Your task to perform on an android device: Clear the shopping cart on bestbuy.com. Search for "panasonic triple a" on bestbuy.com, select the first entry, and add it to the cart. Image 0: 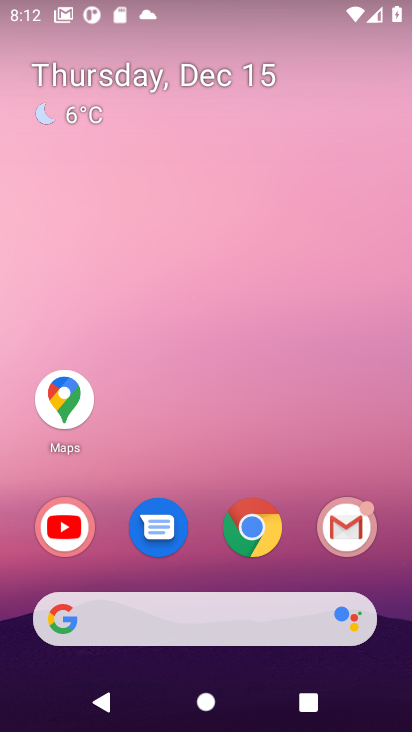
Step 0: click (266, 529)
Your task to perform on an android device: Clear the shopping cart on bestbuy.com. Search for "panasonic triple a" on bestbuy.com, select the first entry, and add it to the cart. Image 1: 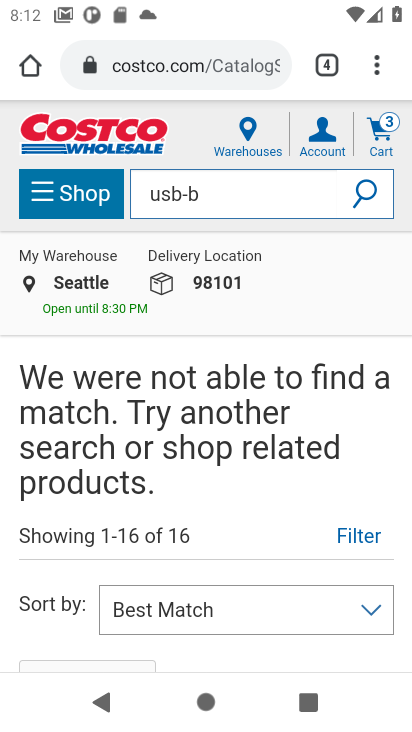
Step 1: click (223, 61)
Your task to perform on an android device: Clear the shopping cart on bestbuy.com. Search for "panasonic triple a" on bestbuy.com, select the first entry, and add it to the cart. Image 2: 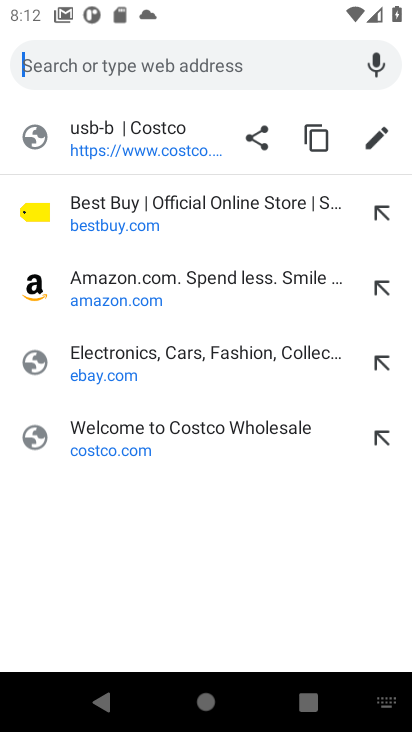
Step 2: type "bestbuy"
Your task to perform on an android device: Clear the shopping cart on bestbuy.com. Search for "panasonic triple a" on bestbuy.com, select the first entry, and add it to the cart. Image 3: 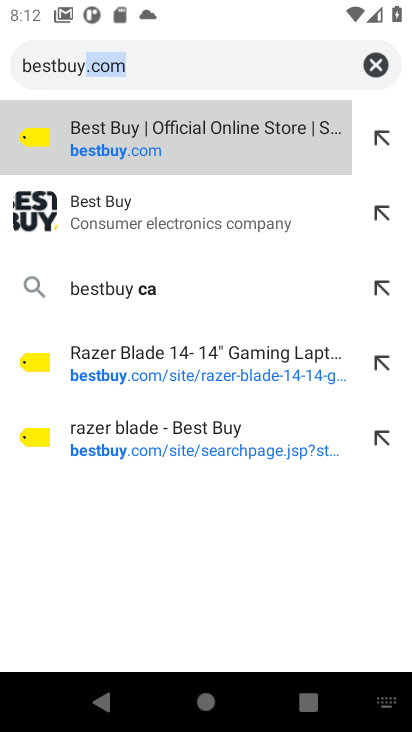
Step 3: click (132, 157)
Your task to perform on an android device: Clear the shopping cart on bestbuy.com. Search for "panasonic triple a" on bestbuy.com, select the first entry, and add it to the cart. Image 4: 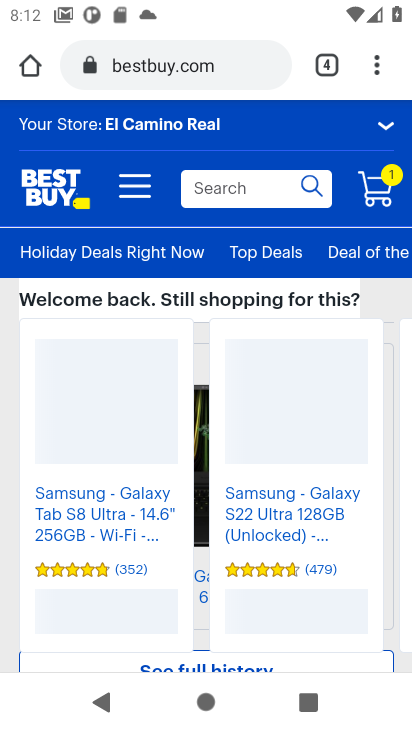
Step 4: click (224, 192)
Your task to perform on an android device: Clear the shopping cart on bestbuy.com. Search for "panasonic triple a" on bestbuy.com, select the first entry, and add it to the cart. Image 5: 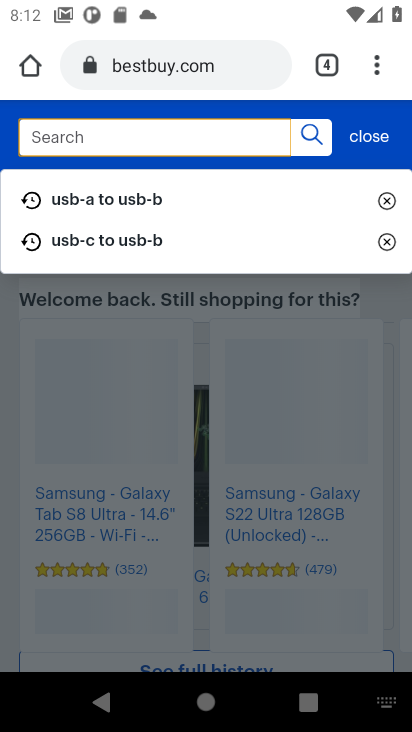
Step 5: type "panasonic triple a"
Your task to perform on an android device: Clear the shopping cart on bestbuy.com. Search for "panasonic triple a" on bestbuy.com, select the first entry, and add it to the cart. Image 6: 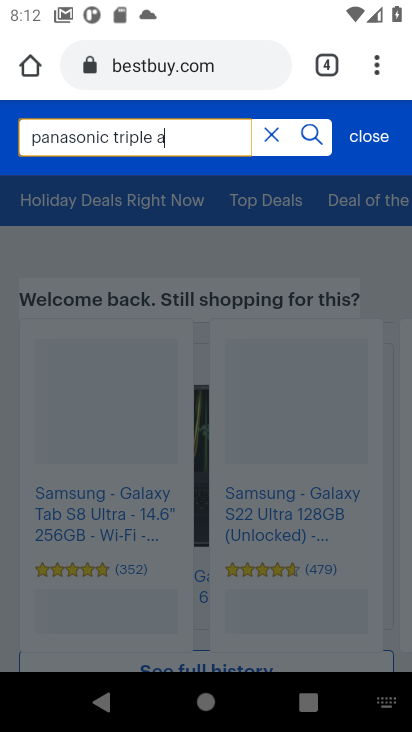
Step 6: click (304, 155)
Your task to perform on an android device: Clear the shopping cart on bestbuy.com. Search for "panasonic triple a" on bestbuy.com, select the first entry, and add it to the cart. Image 7: 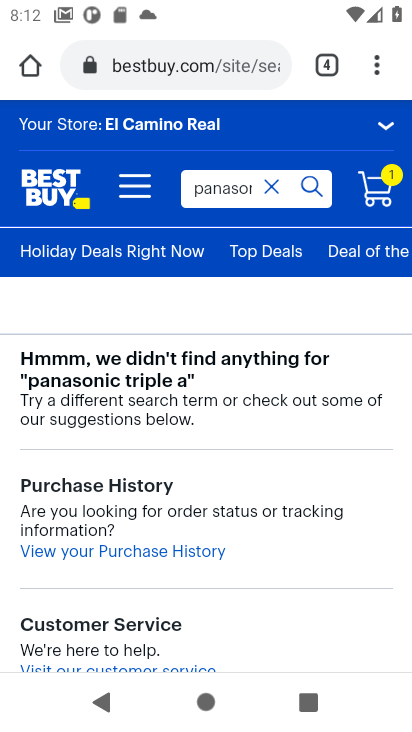
Step 7: task complete